Your task to perform on an android device: turn on priority inbox in the gmail app Image 0: 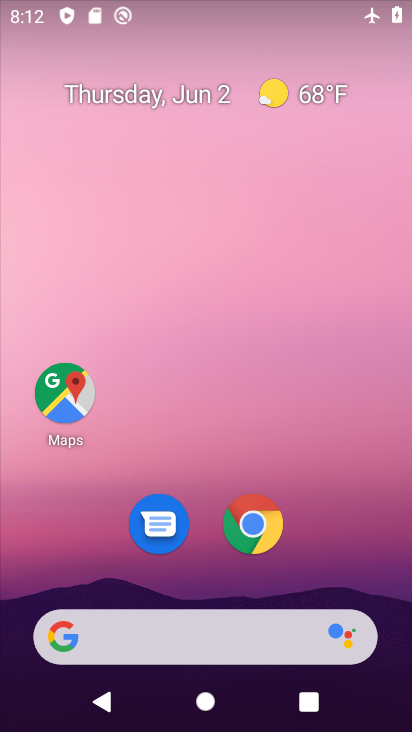
Step 0: drag from (315, 522) to (328, 35)
Your task to perform on an android device: turn on priority inbox in the gmail app Image 1: 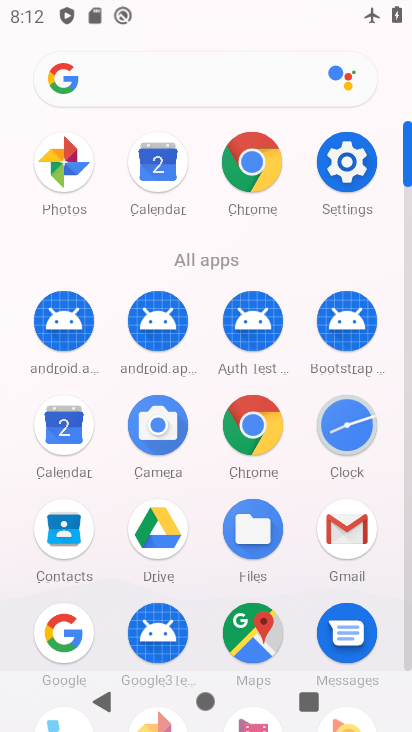
Step 1: click (343, 528)
Your task to perform on an android device: turn on priority inbox in the gmail app Image 2: 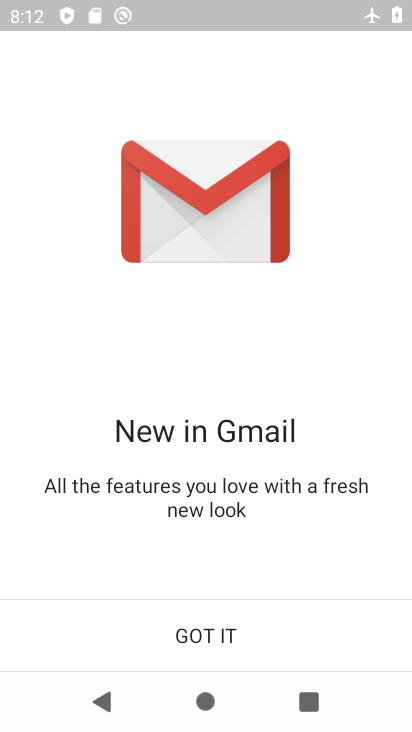
Step 2: click (283, 614)
Your task to perform on an android device: turn on priority inbox in the gmail app Image 3: 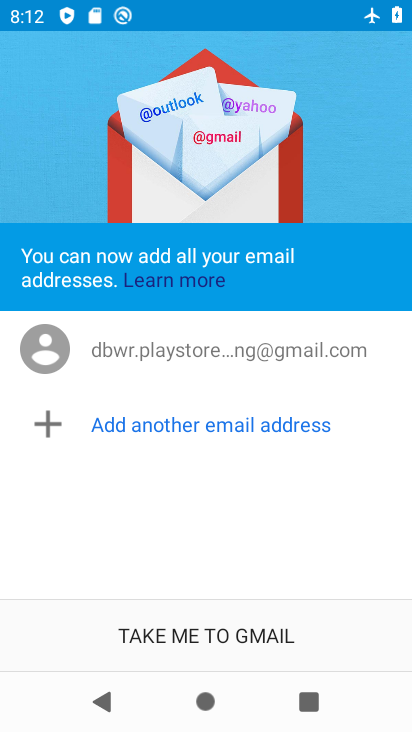
Step 3: click (279, 630)
Your task to perform on an android device: turn on priority inbox in the gmail app Image 4: 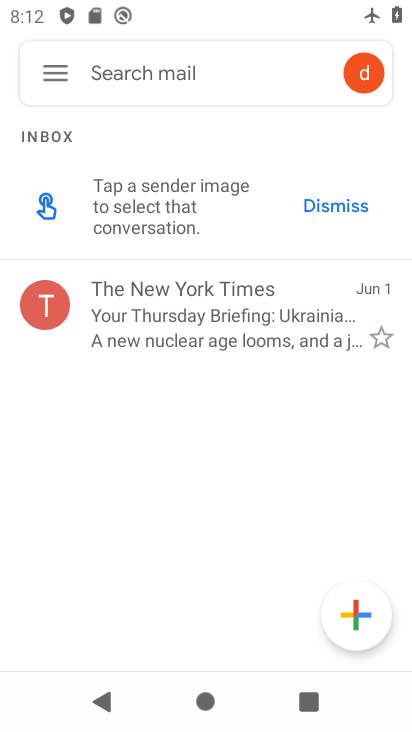
Step 4: click (60, 73)
Your task to perform on an android device: turn on priority inbox in the gmail app Image 5: 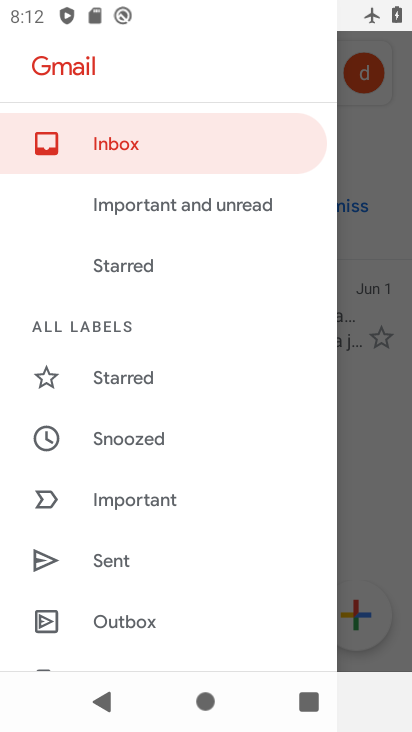
Step 5: drag from (152, 570) to (260, 2)
Your task to perform on an android device: turn on priority inbox in the gmail app Image 6: 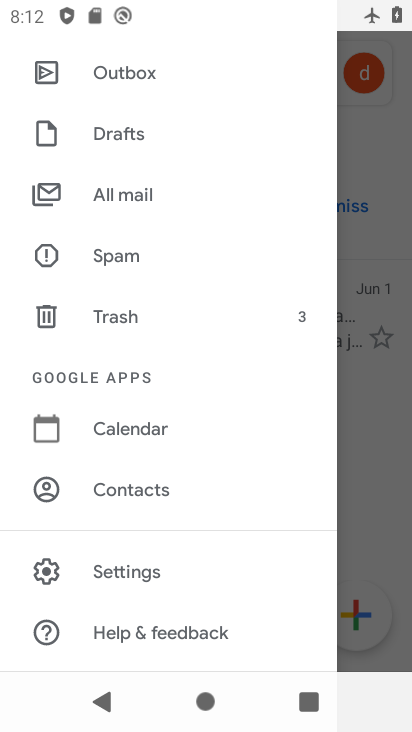
Step 6: click (137, 563)
Your task to perform on an android device: turn on priority inbox in the gmail app Image 7: 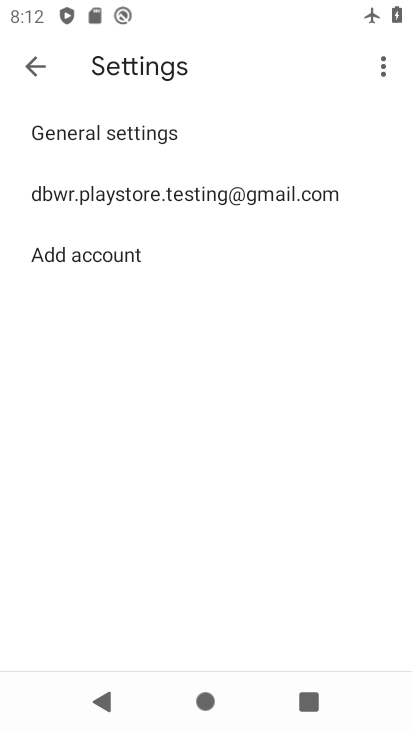
Step 7: click (254, 191)
Your task to perform on an android device: turn on priority inbox in the gmail app Image 8: 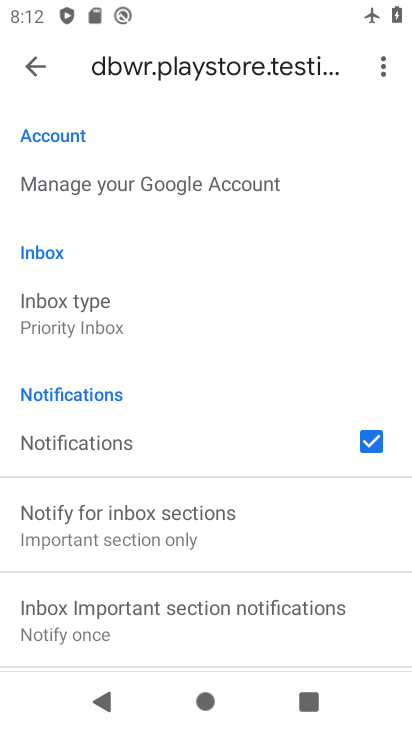
Step 8: task complete